Your task to perform on an android device: Open Yahoo.com Image 0: 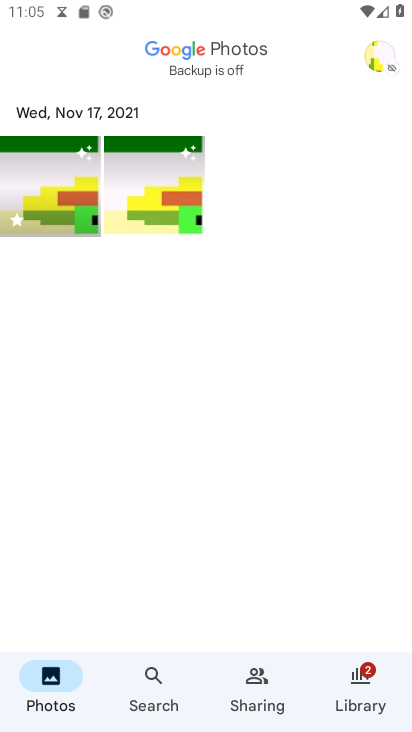
Step 0: press home button
Your task to perform on an android device: Open Yahoo.com Image 1: 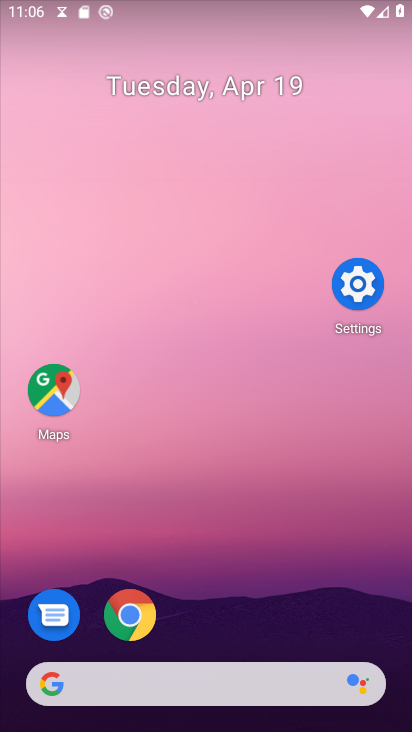
Step 1: drag from (213, 625) to (353, 26)
Your task to perform on an android device: Open Yahoo.com Image 2: 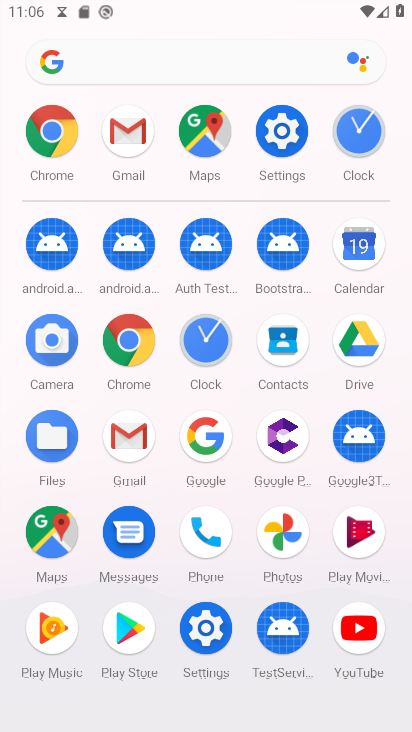
Step 2: click (133, 334)
Your task to perform on an android device: Open Yahoo.com Image 3: 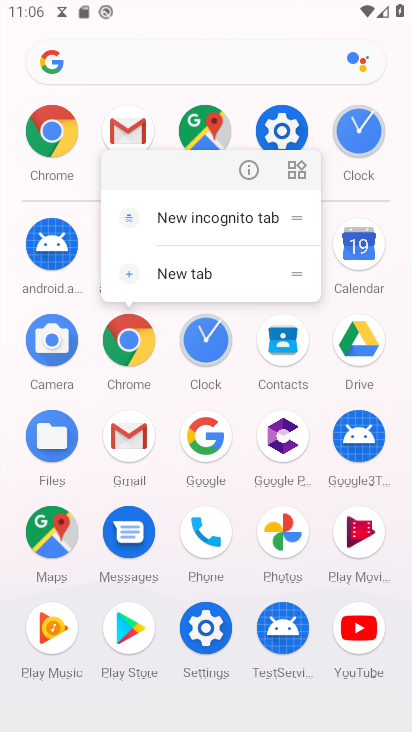
Step 3: click (272, 165)
Your task to perform on an android device: Open Yahoo.com Image 4: 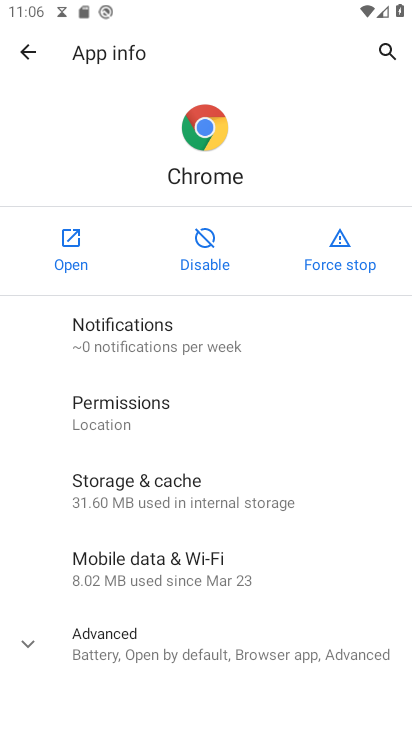
Step 4: click (74, 248)
Your task to perform on an android device: Open Yahoo.com Image 5: 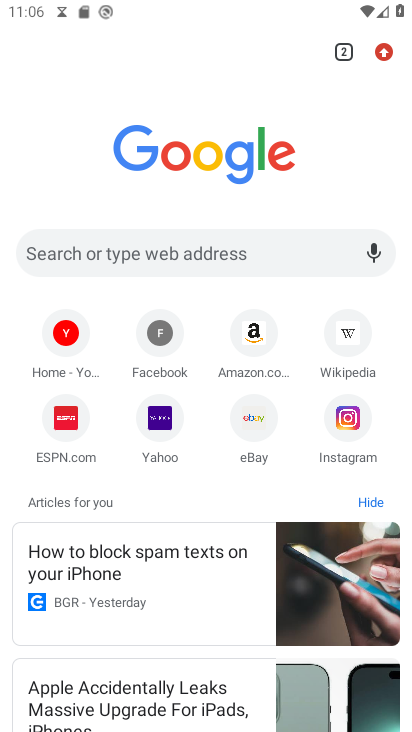
Step 5: click (165, 416)
Your task to perform on an android device: Open Yahoo.com Image 6: 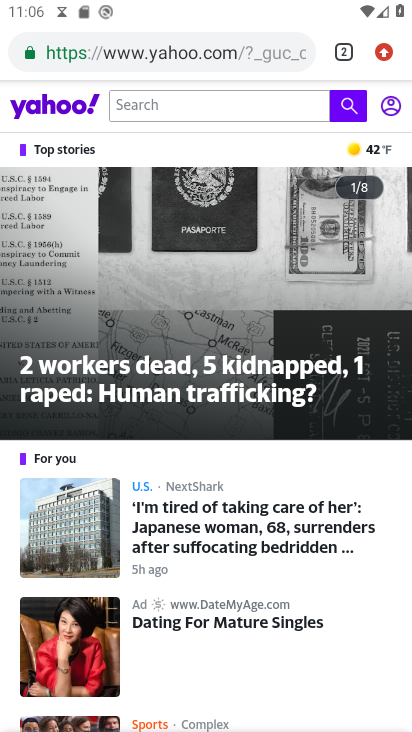
Step 6: task complete